Your task to perform on an android device: Add "usb-c" to the cart on costco, then select checkout. Image 0: 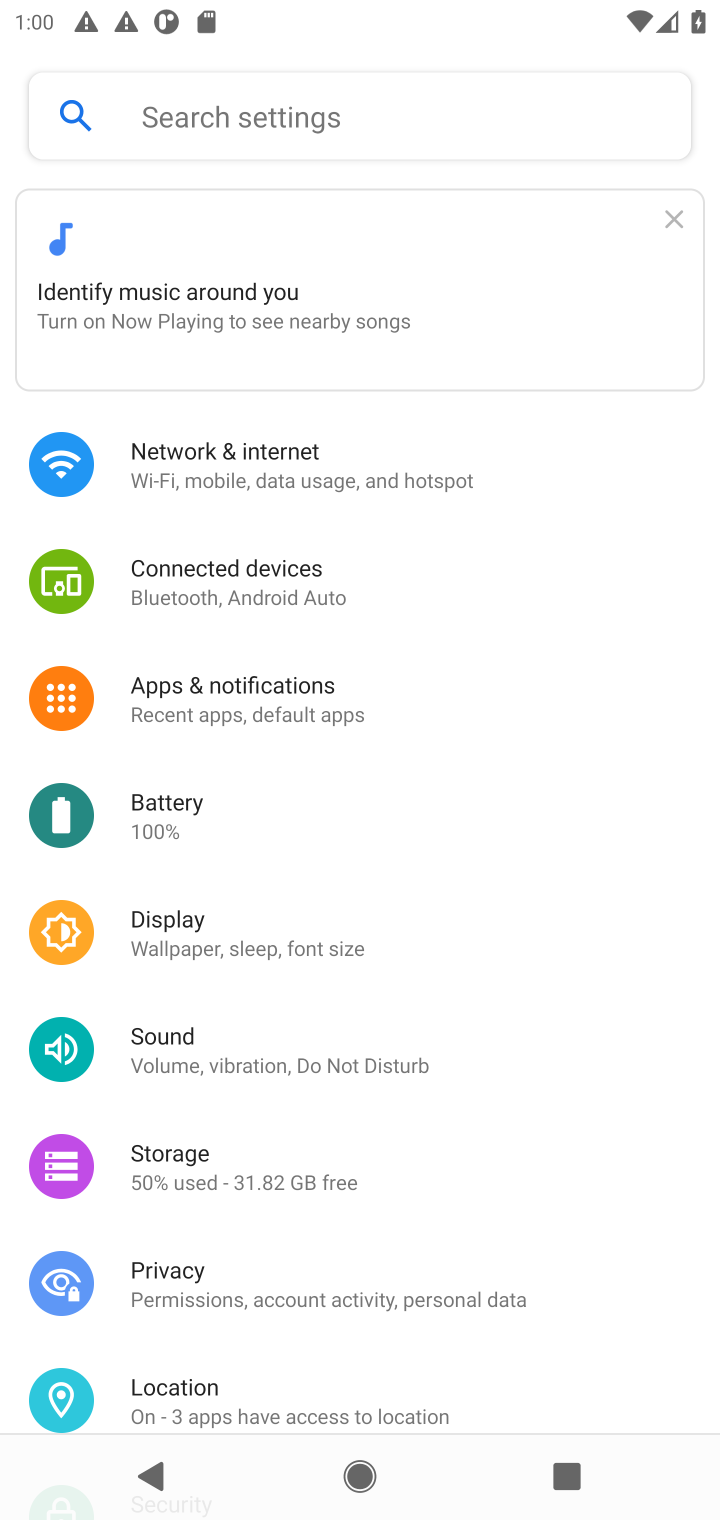
Step 0: press home button
Your task to perform on an android device: Add "usb-c" to the cart on costco, then select checkout. Image 1: 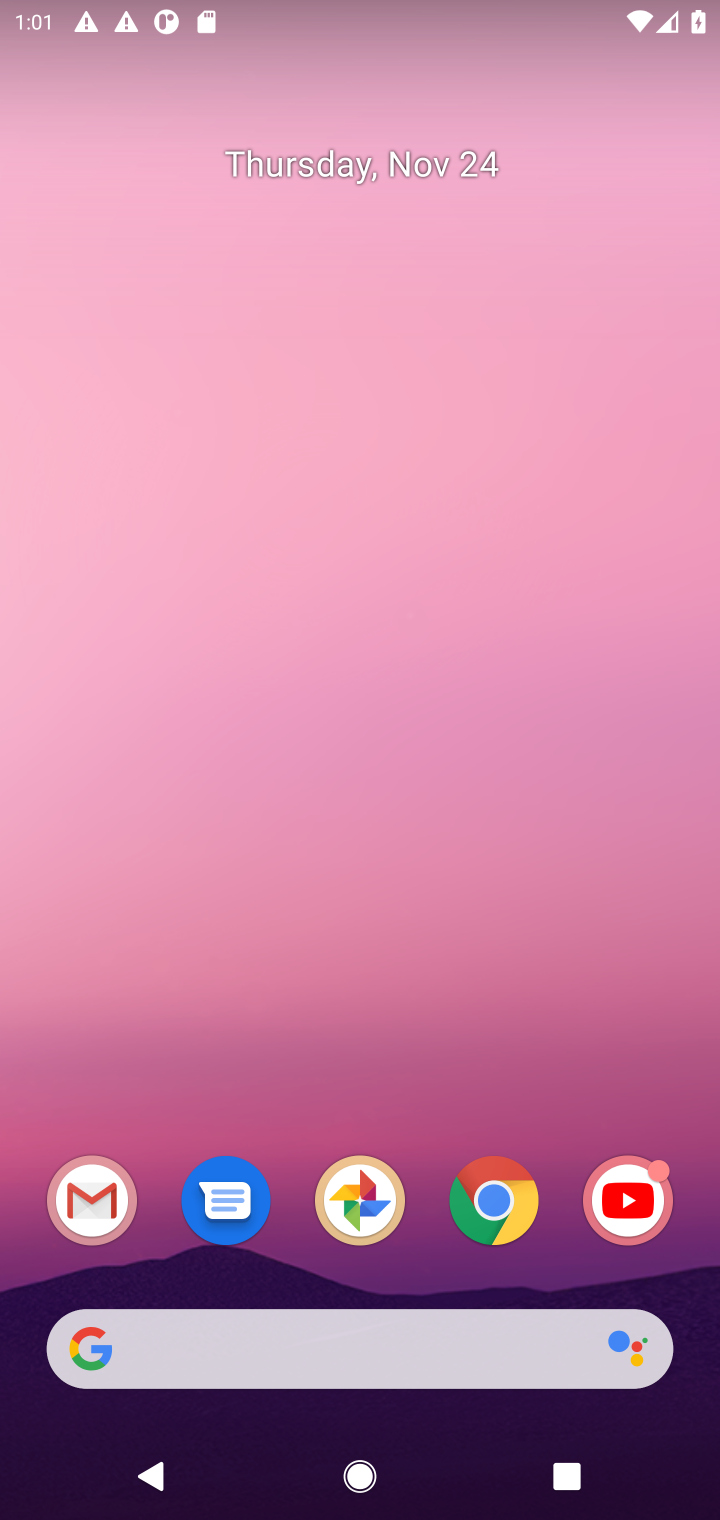
Step 1: click (382, 1361)
Your task to perform on an android device: Add "usb-c" to the cart on costco, then select checkout. Image 2: 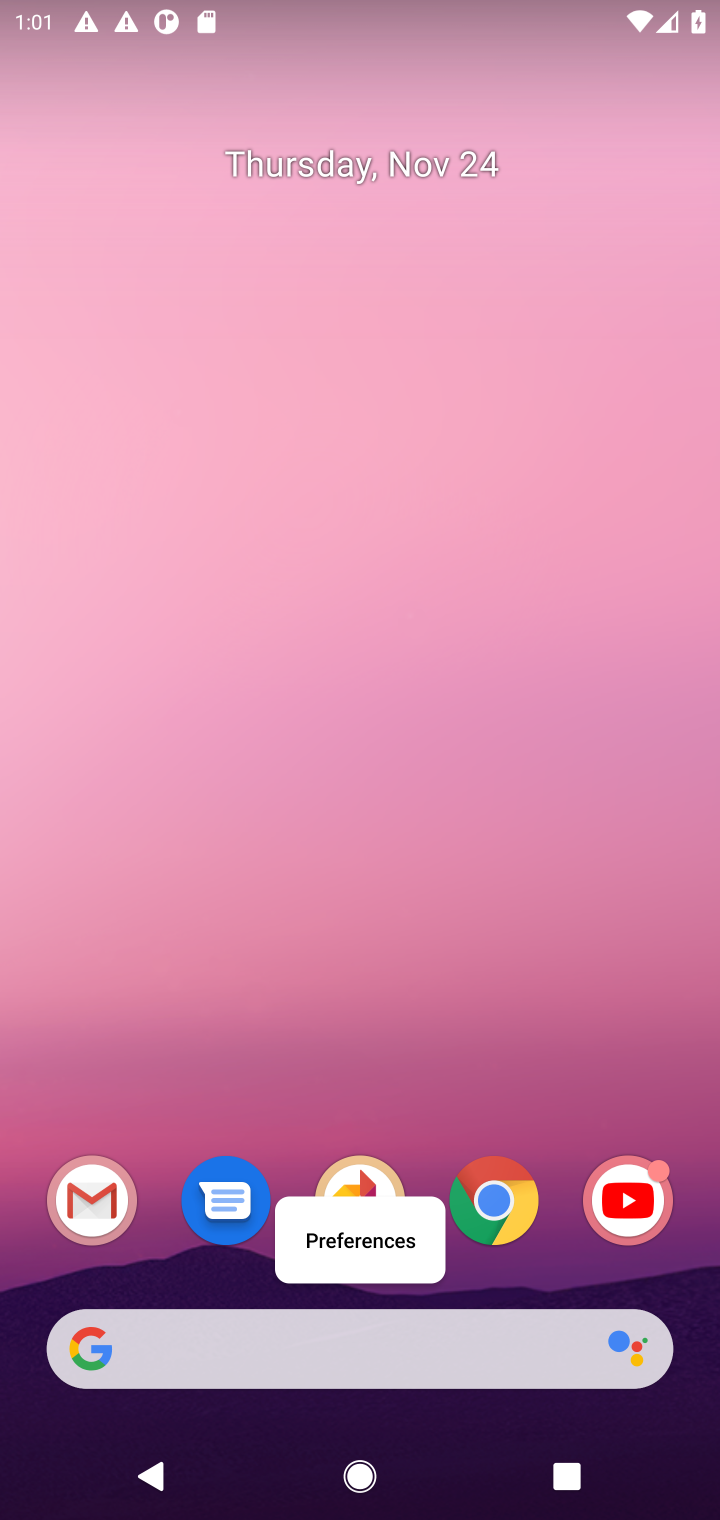
Step 2: type "costco"
Your task to perform on an android device: Add "usb-c" to the cart on costco, then select checkout. Image 3: 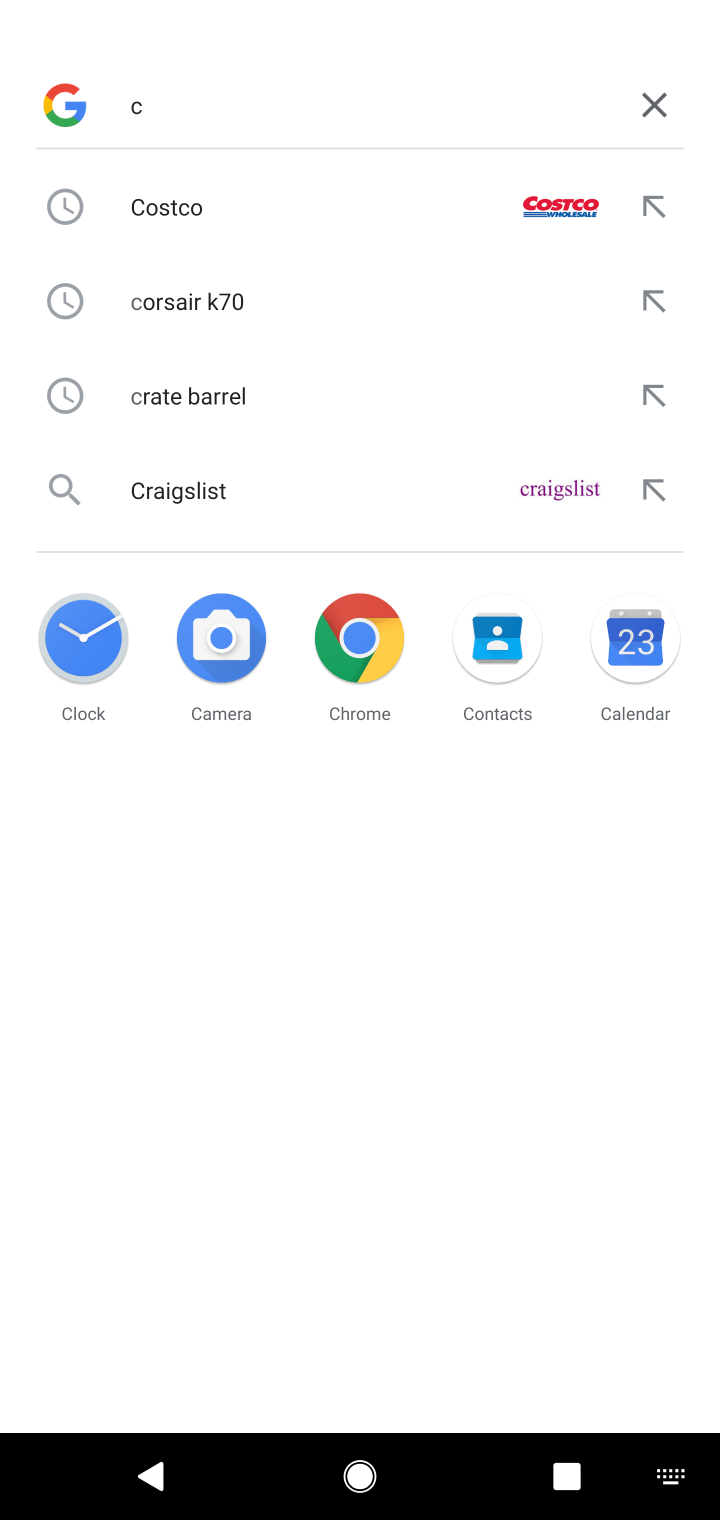
Step 3: click (480, 202)
Your task to perform on an android device: Add "usb-c" to the cart on costco, then select checkout. Image 4: 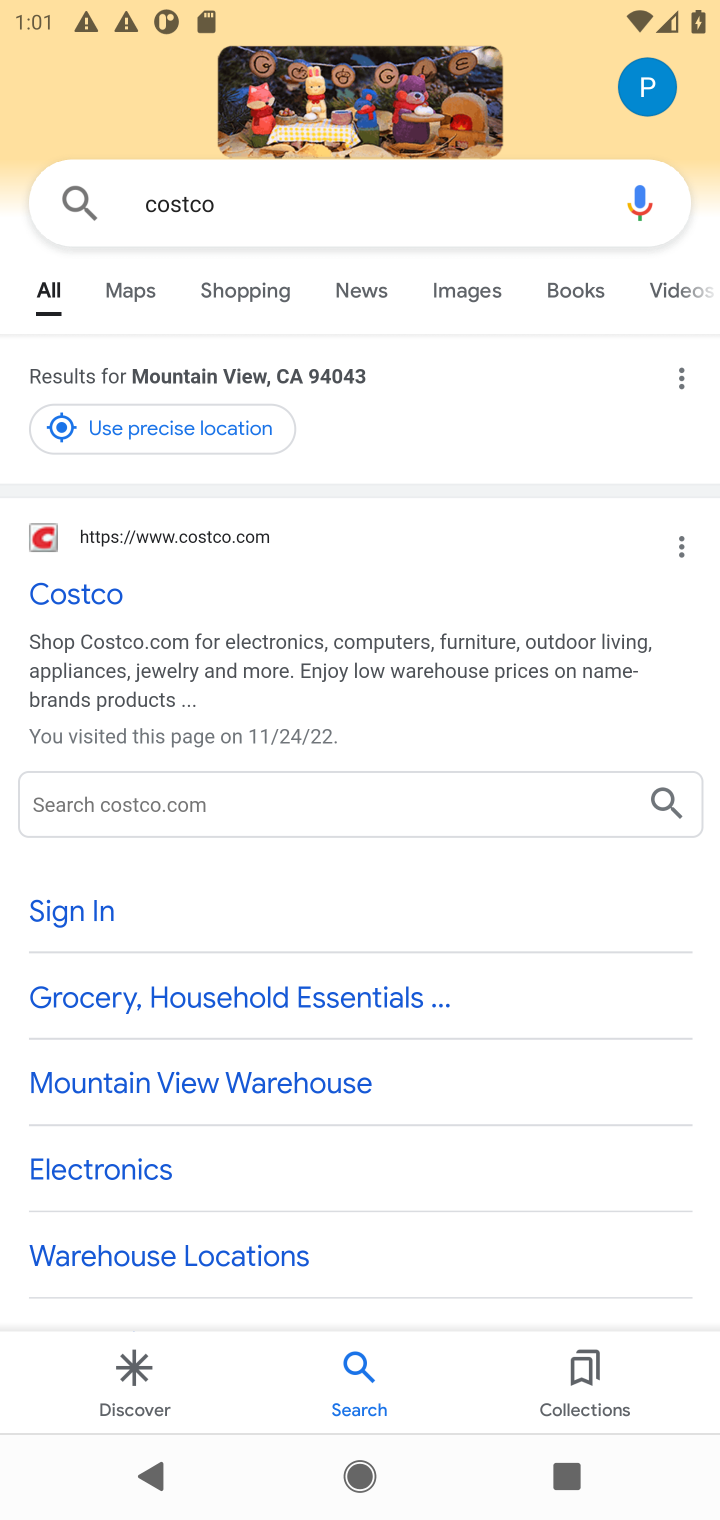
Step 4: click (105, 590)
Your task to perform on an android device: Add "usb-c" to the cart on costco, then select checkout. Image 5: 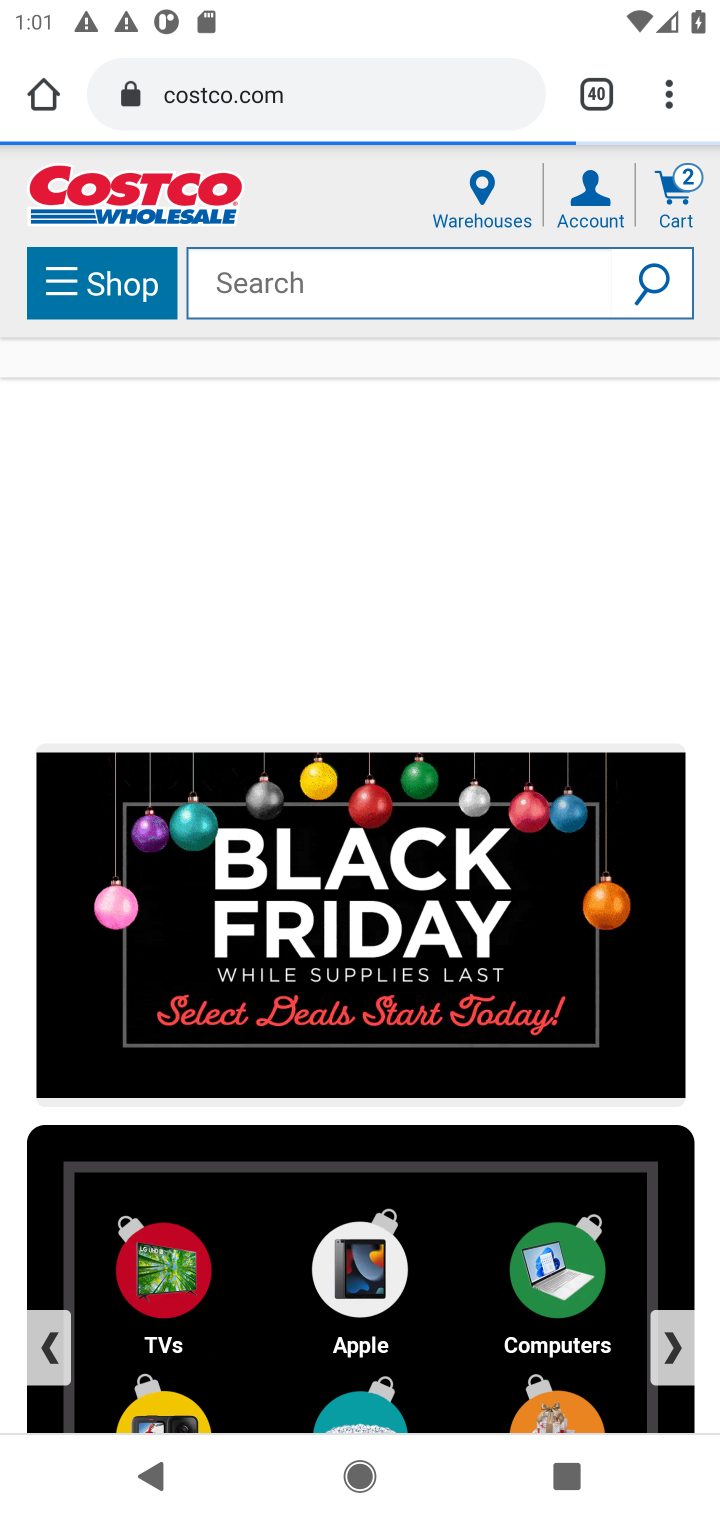
Step 5: click (376, 288)
Your task to perform on an android device: Add "usb-c" to the cart on costco, then select checkout. Image 6: 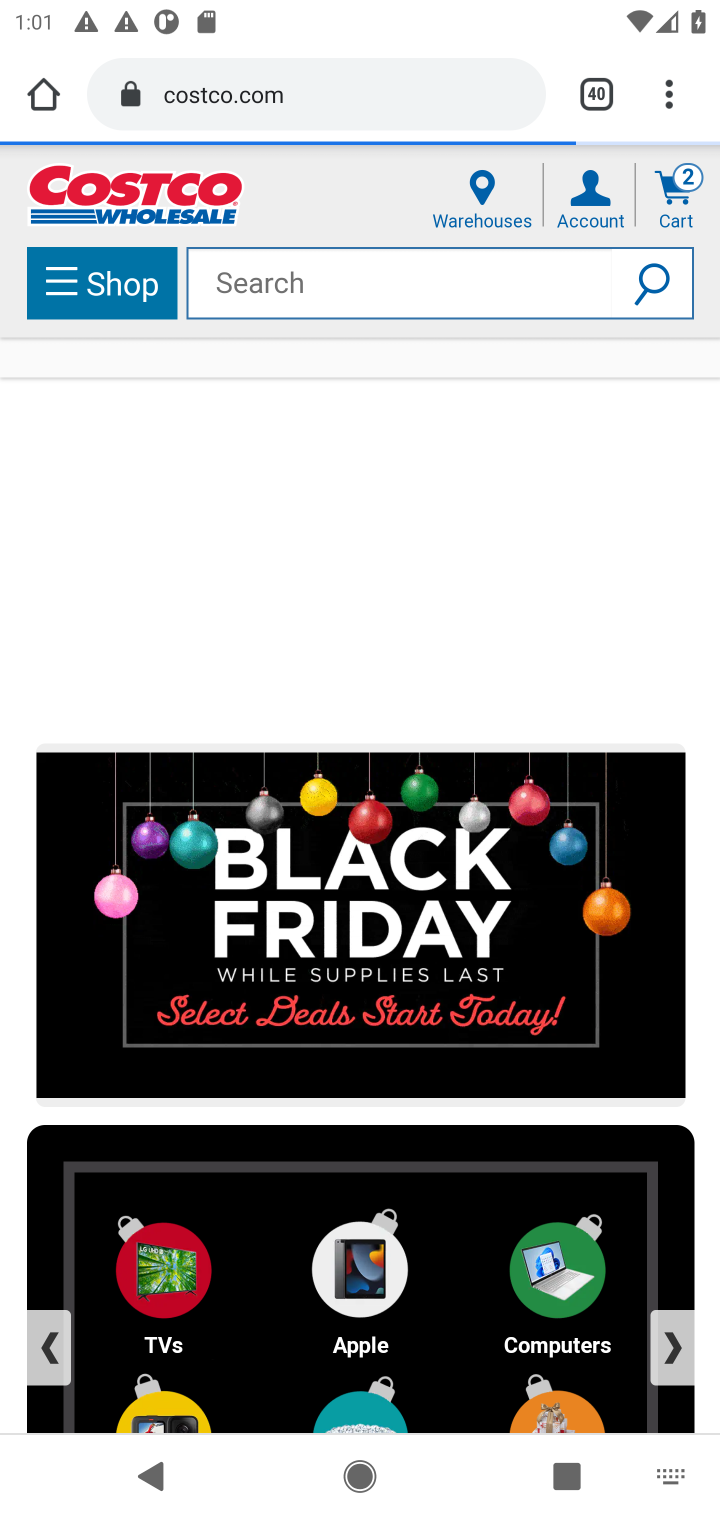
Step 6: type ""
Your task to perform on an android device: Add "usb-c" to the cart on costco, then select checkout. Image 7: 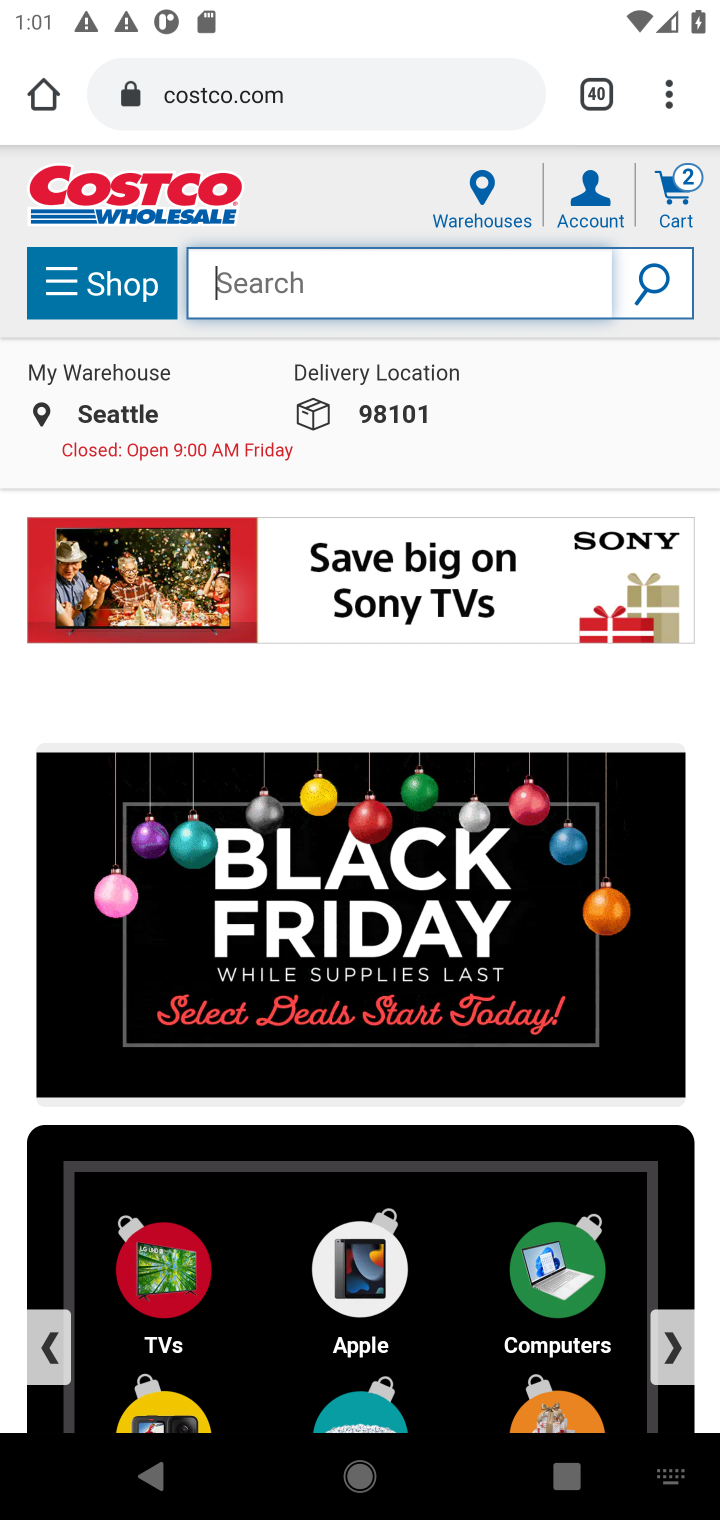
Step 7: type "usb-c"
Your task to perform on an android device: Add "usb-c" to the cart on costco, then select checkout. Image 8: 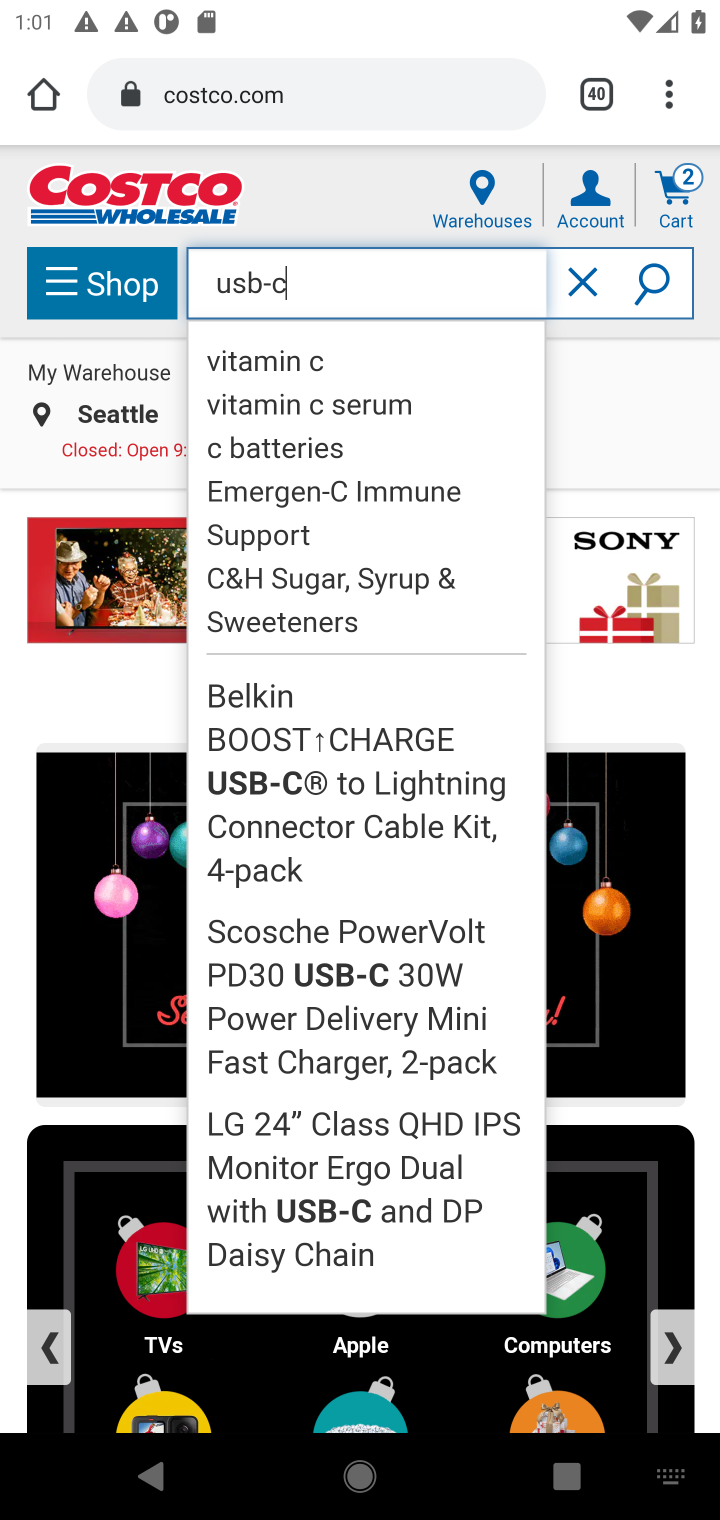
Step 8: click (666, 287)
Your task to perform on an android device: Add "usb-c" to the cart on costco, then select checkout. Image 9: 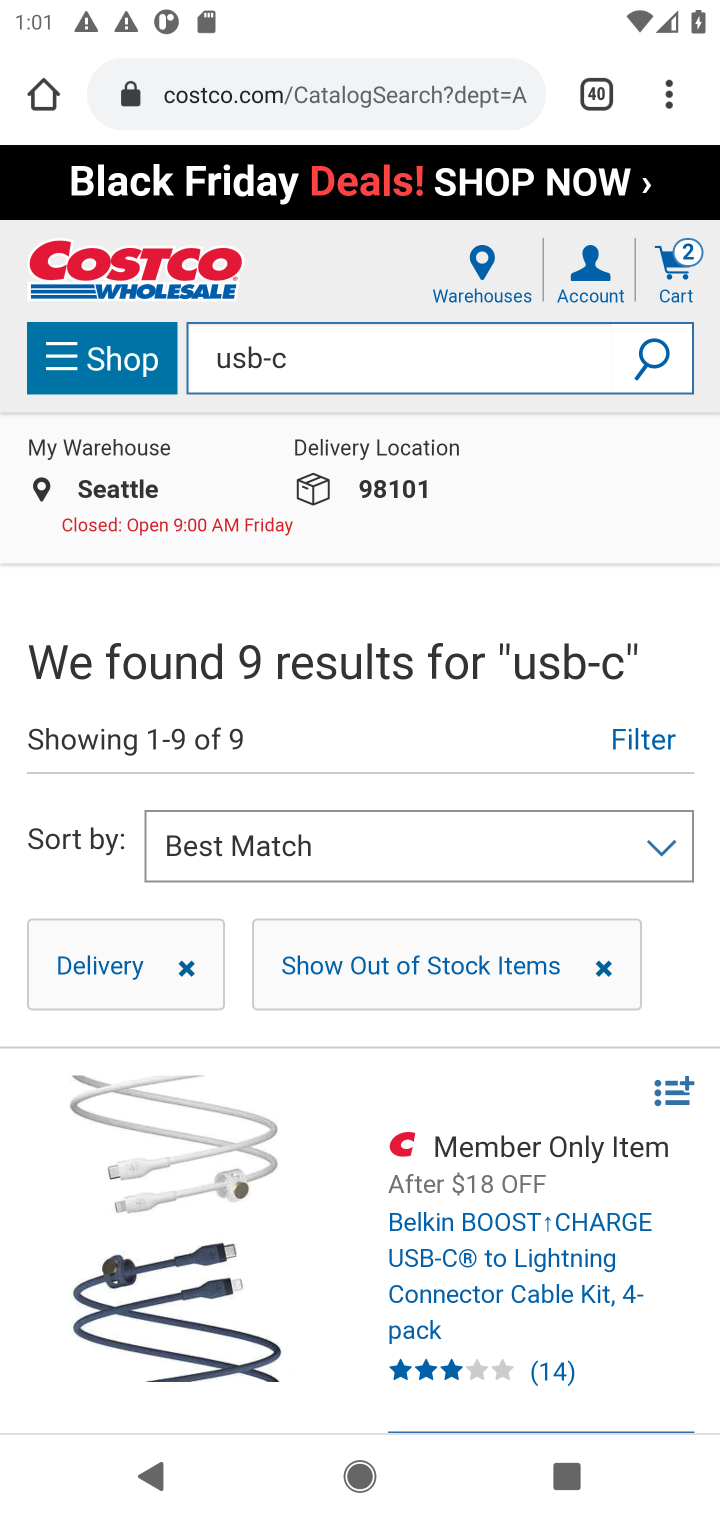
Step 9: drag from (542, 1423) to (496, 984)
Your task to perform on an android device: Add "usb-c" to the cart on costco, then select checkout. Image 10: 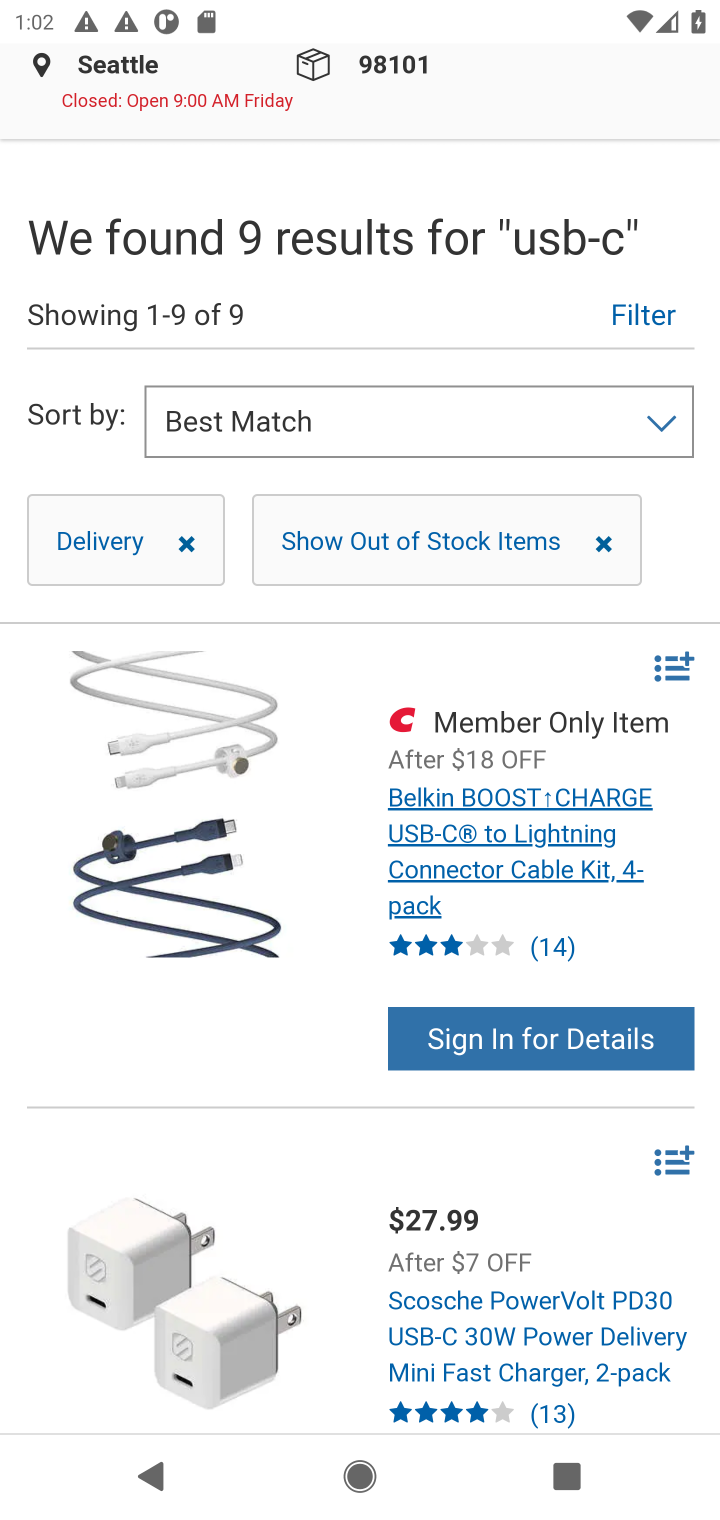
Step 10: click (496, 1040)
Your task to perform on an android device: Add "usb-c" to the cart on costco, then select checkout. Image 11: 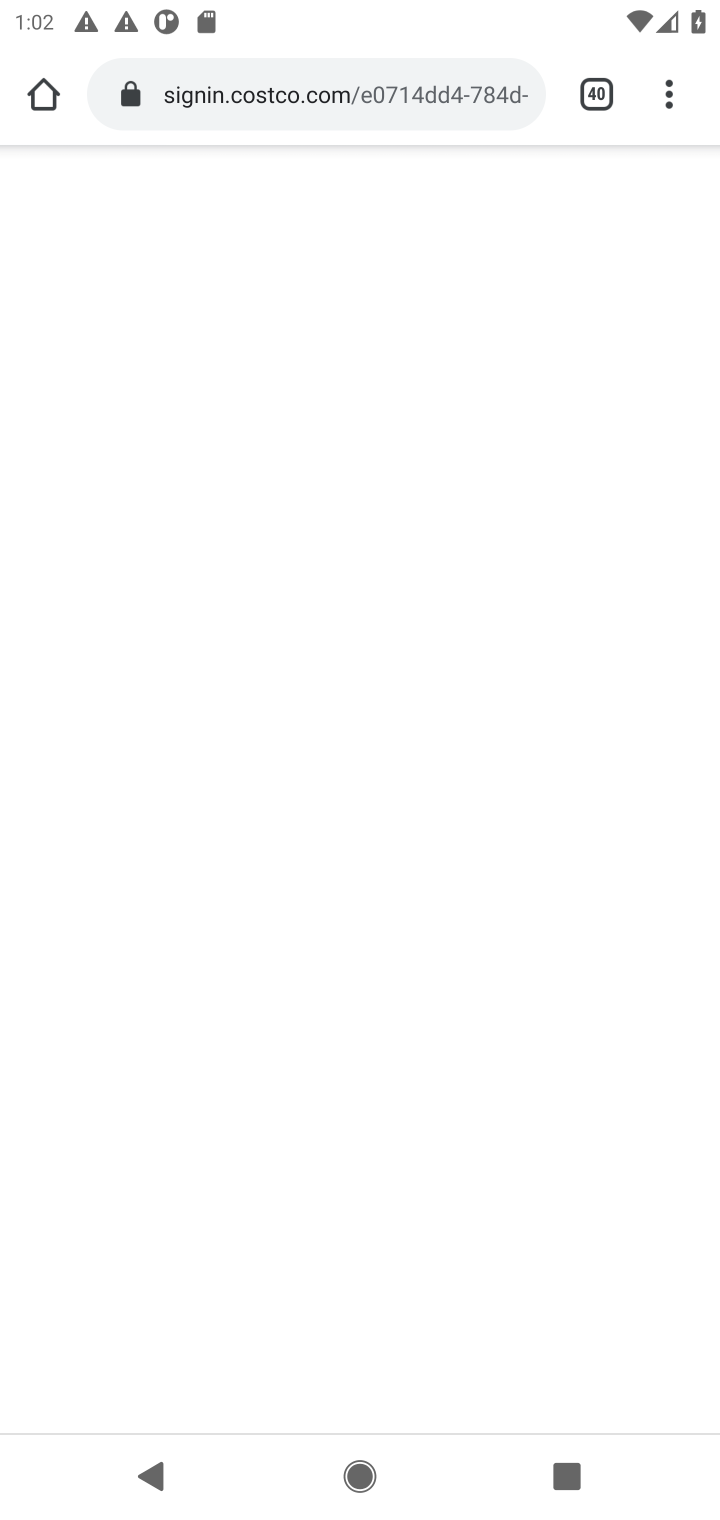
Step 11: task complete